Your task to perform on an android device: Go to CNN.com Image 0: 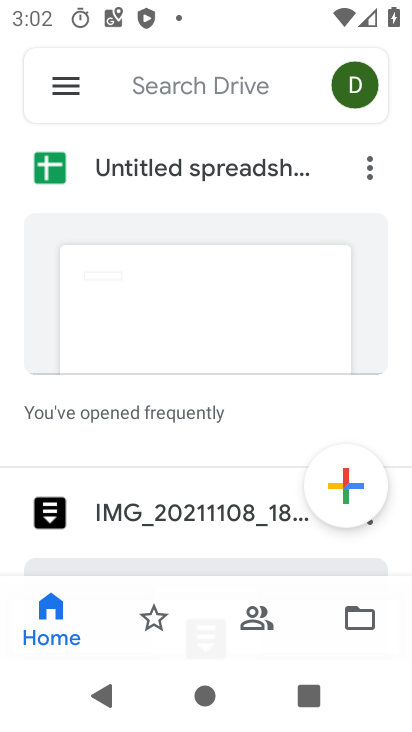
Step 0: press home button
Your task to perform on an android device: Go to CNN.com Image 1: 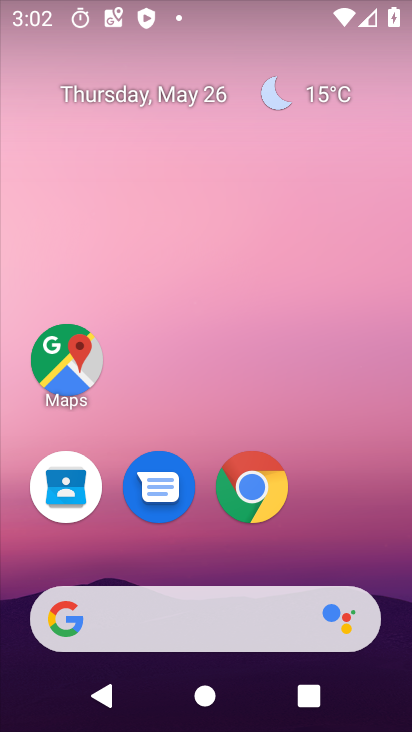
Step 1: click (252, 485)
Your task to perform on an android device: Go to CNN.com Image 2: 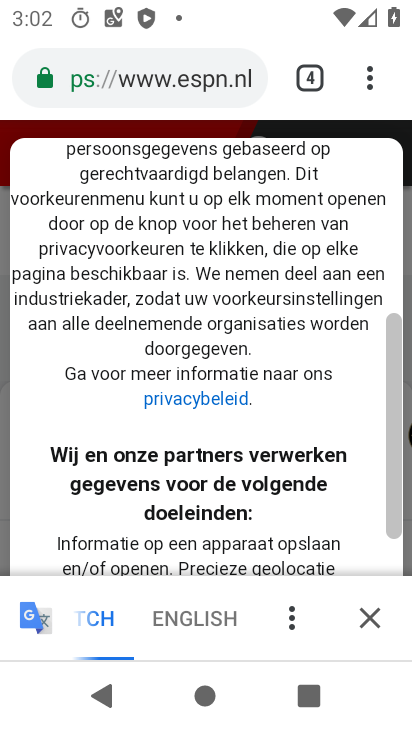
Step 2: click (307, 86)
Your task to perform on an android device: Go to CNN.com Image 3: 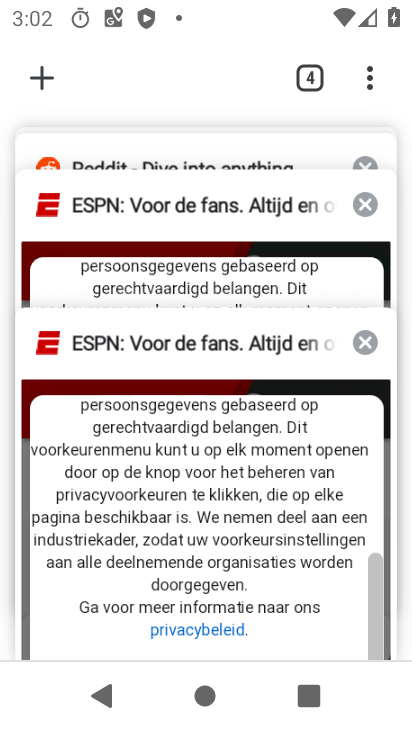
Step 3: drag from (131, 183) to (145, 403)
Your task to perform on an android device: Go to CNN.com Image 4: 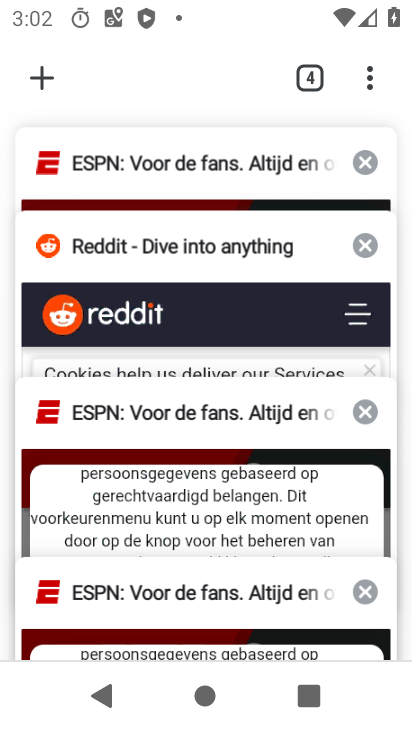
Step 4: drag from (198, 174) to (198, 372)
Your task to perform on an android device: Go to CNN.com Image 5: 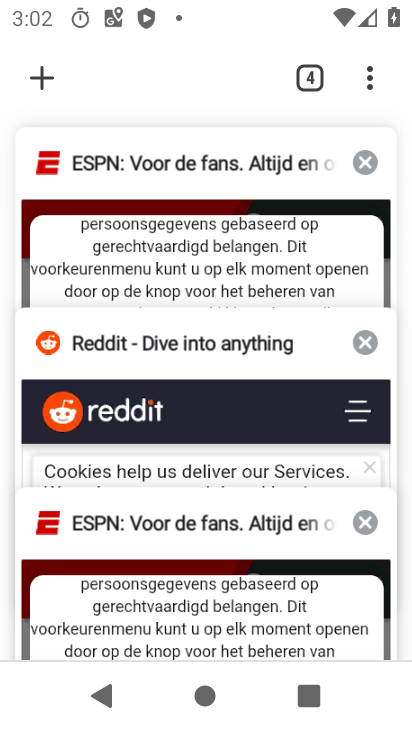
Step 5: drag from (191, 176) to (191, 388)
Your task to perform on an android device: Go to CNN.com Image 6: 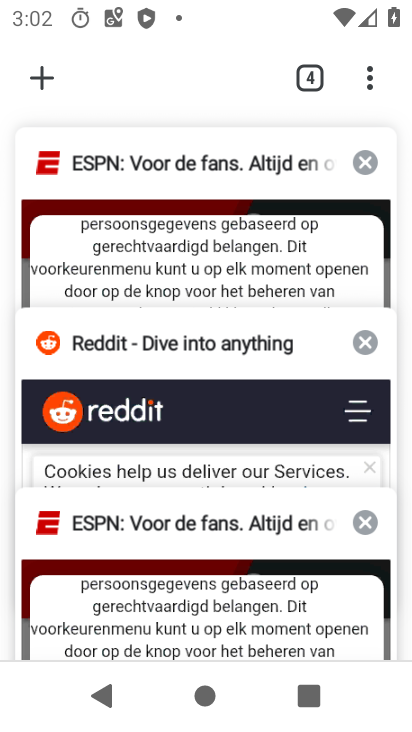
Step 6: drag from (195, 203) to (199, 436)
Your task to perform on an android device: Go to CNN.com Image 7: 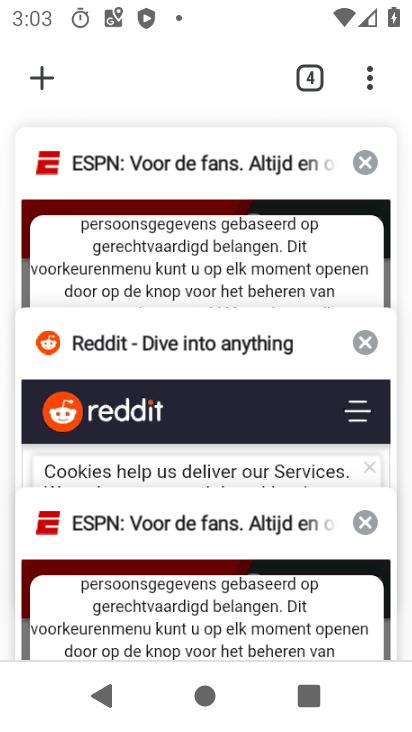
Step 7: click (52, 89)
Your task to perform on an android device: Go to CNN.com Image 8: 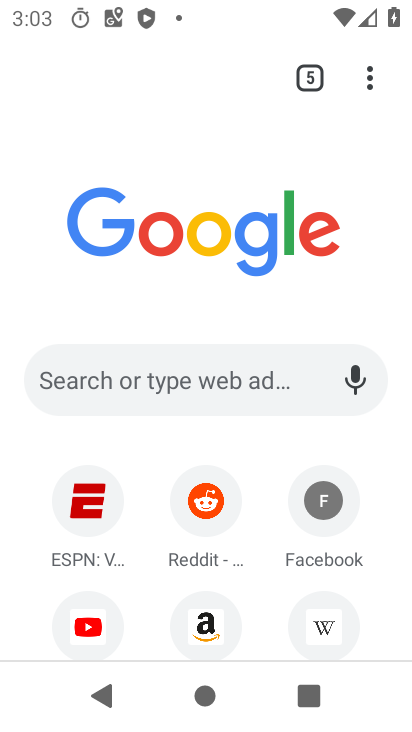
Step 8: drag from (152, 576) to (205, 238)
Your task to perform on an android device: Go to CNN.com Image 9: 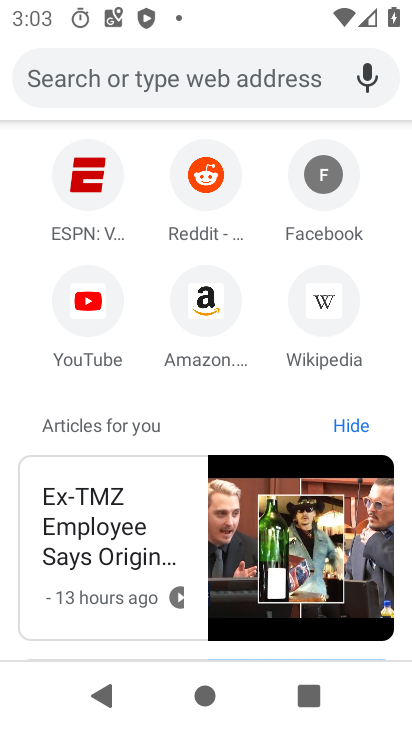
Step 9: click (201, 89)
Your task to perform on an android device: Go to CNN.com Image 10: 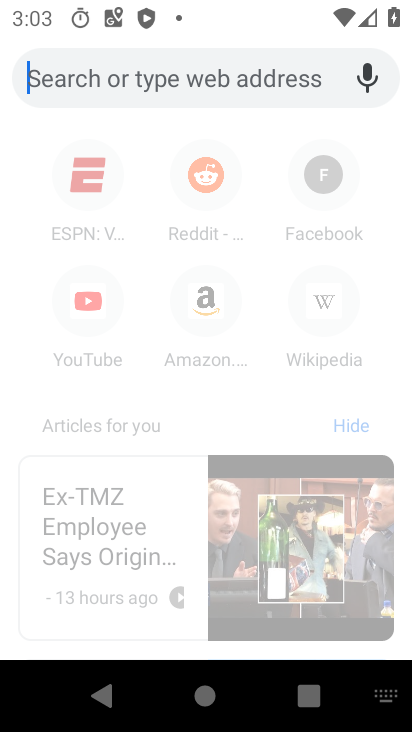
Step 10: type "CNN.com"
Your task to perform on an android device: Go to CNN.com Image 11: 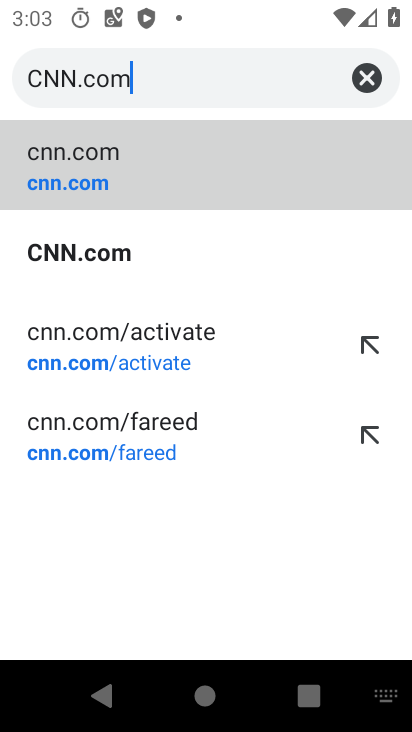
Step 11: click (146, 180)
Your task to perform on an android device: Go to CNN.com Image 12: 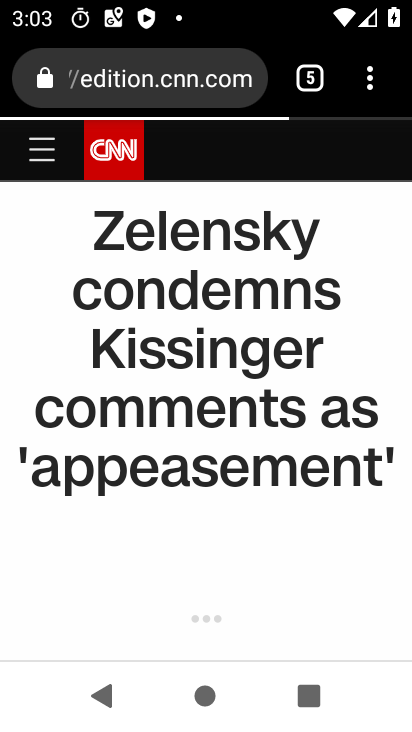
Step 12: task complete